Your task to perform on an android device: Go to eBay Image 0: 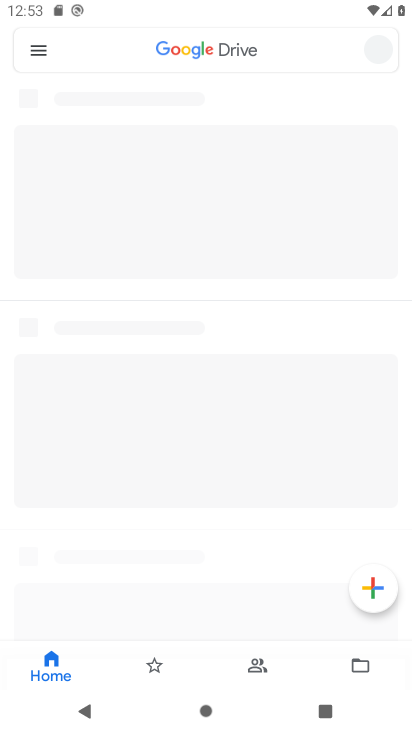
Step 0: drag from (237, 612) to (236, 200)
Your task to perform on an android device: Go to eBay Image 1: 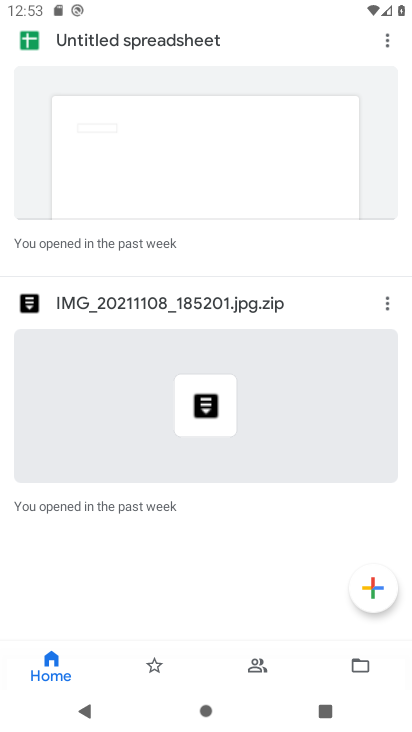
Step 1: press home button
Your task to perform on an android device: Go to eBay Image 2: 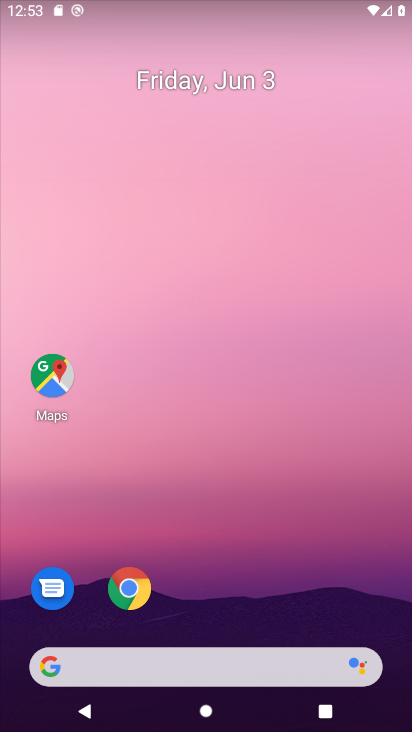
Step 2: drag from (209, 631) to (214, 155)
Your task to perform on an android device: Go to eBay Image 3: 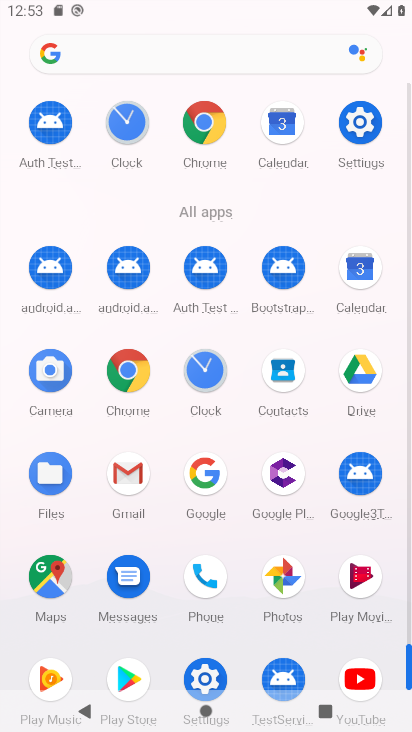
Step 3: click (210, 133)
Your task to perform on an android device: Go to eBay Image 4: 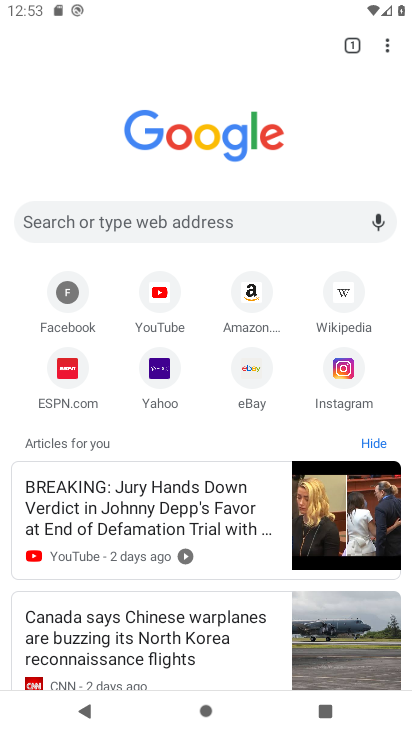
Step 4: click (235, 225)
Your task to perform on an android device: Go to eBay Image 5: 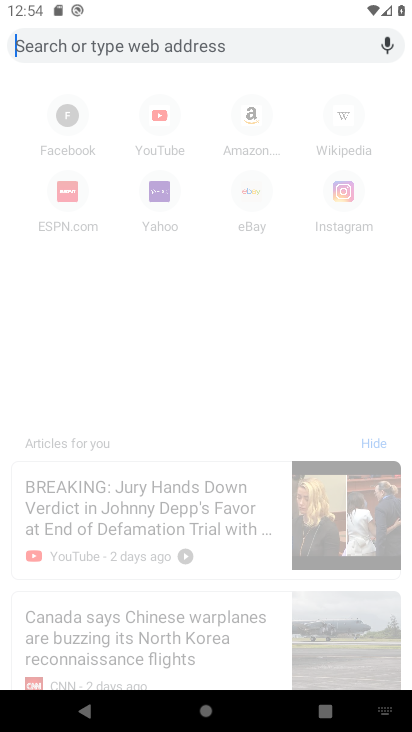
Step 5: press back button
Your task to perform on an android device: Go to eBay Image 6: 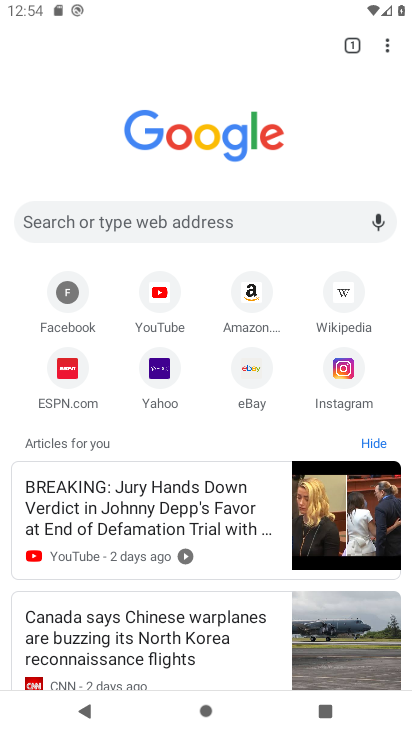
Step 6: click (252, 363)
Your task to perform on an android device: Go to eBay Image 7: 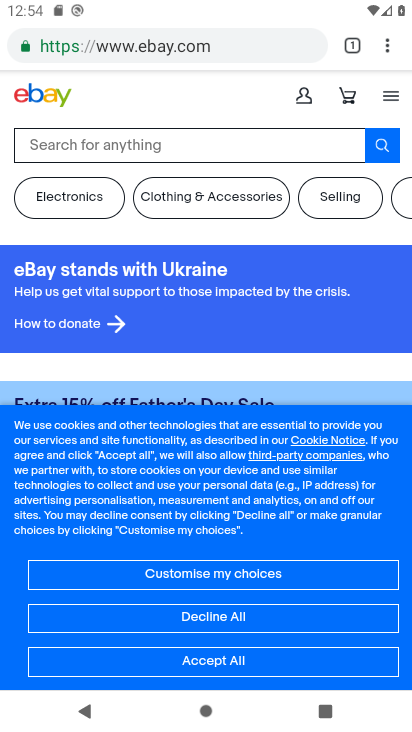
Step 7: task complete